Your task to perform on an android device: add a label to a message in the gmail app Image 0: 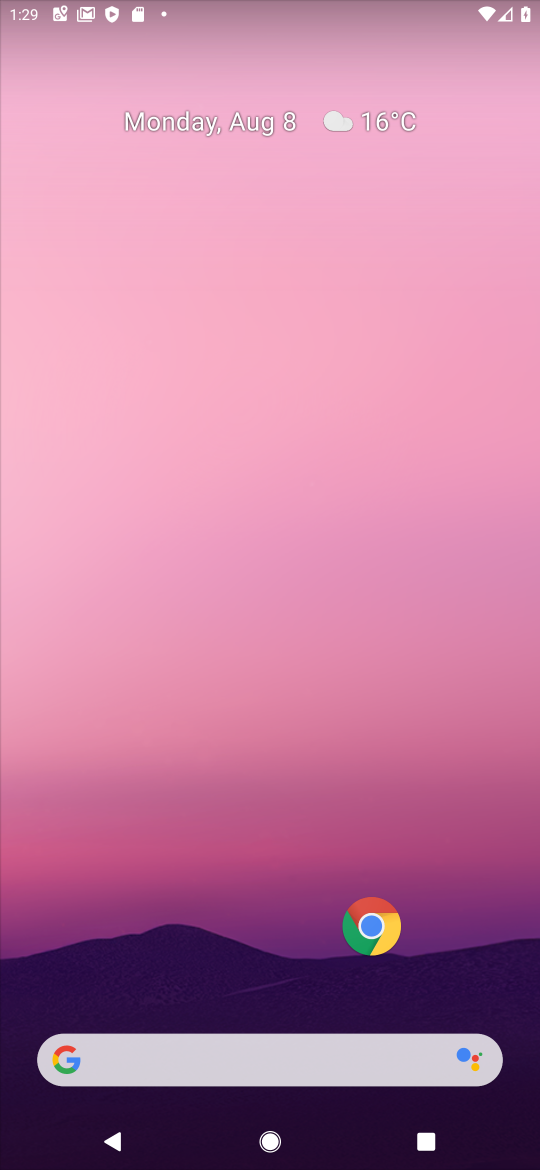
Step 0: drag from (288, 1003) to (313, 240)
Your task to perform on an android device: add a label to a message in the gmail app Image 1: 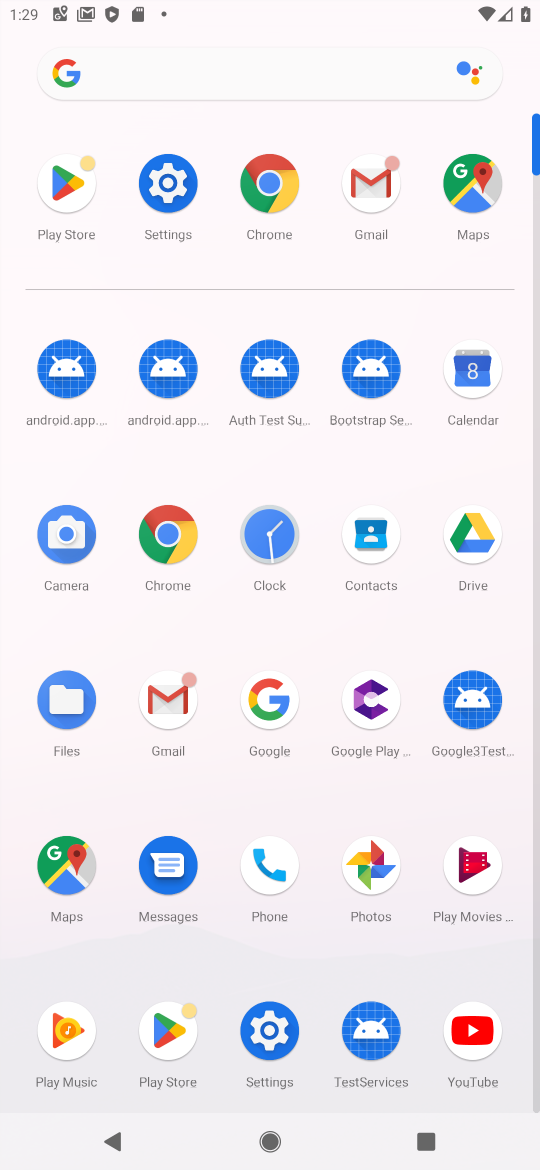
Step 1: click (175, 702)
Your task to perform on an android device: add a label to a message in the gmail app Image 2: 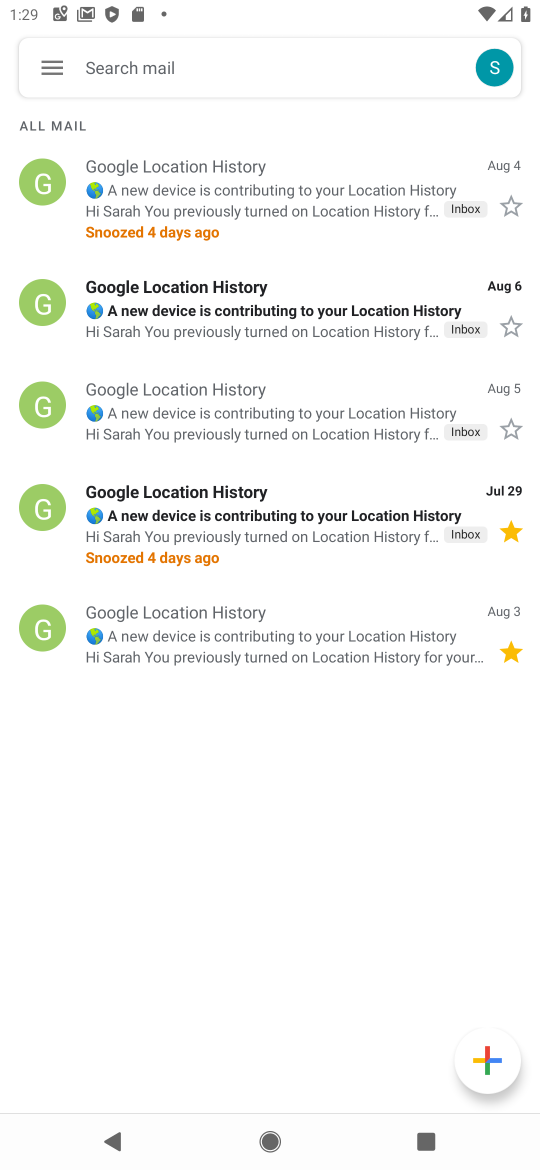
Step 2: click (62, 59)
Your task to perform on an android device: add a label to a message in the gmail app Image 3: 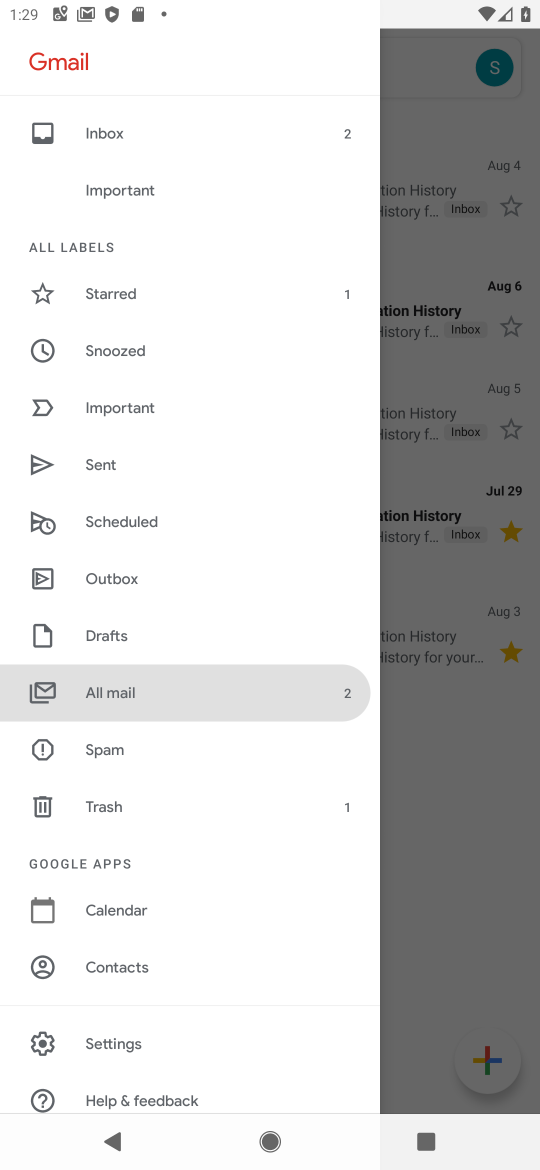
Step 3: drag from (180, 920) to (238, 231)
Your task to perform on an android device: add a label to a message in the gmail app Image 4: 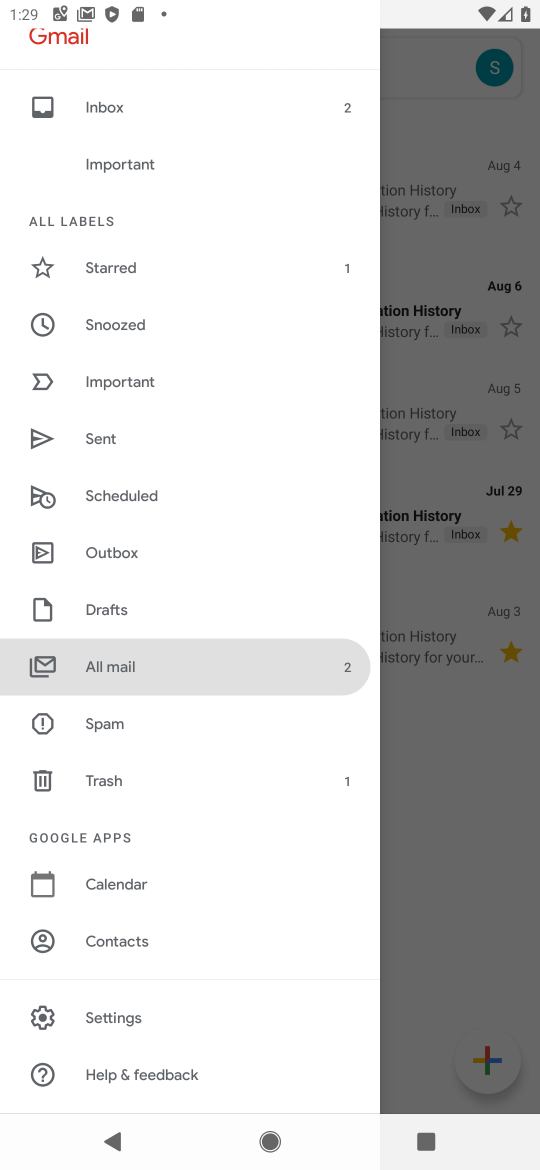
Step 4: click (203, 665)
Your task to perform on an android device: add a label to a message in the gmail app Image 5: 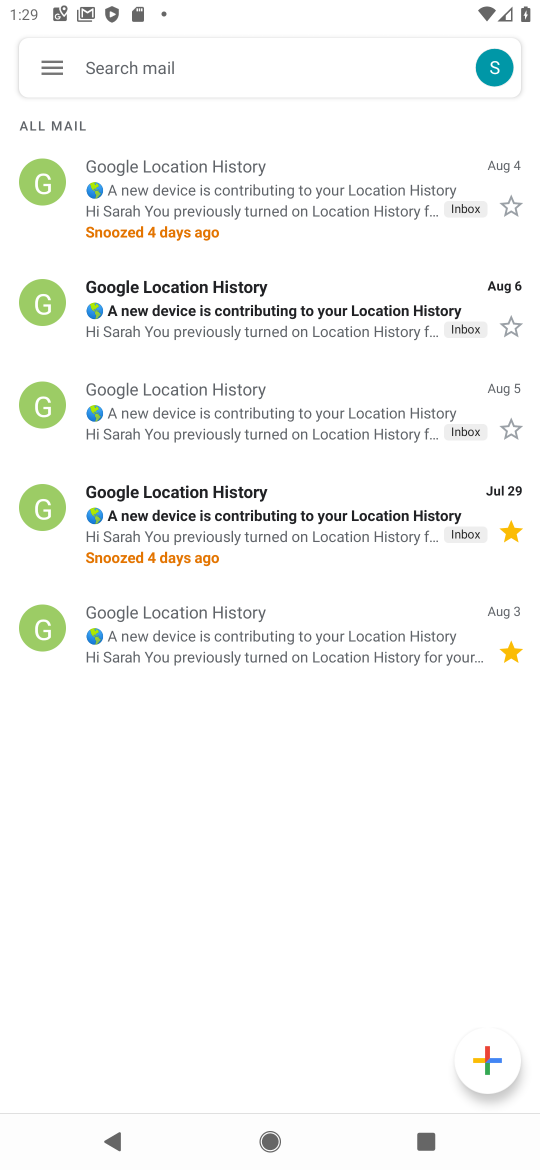
Step 5: click (245, 172)
Your task to perform on an android device: add a label to a message in the gmail app Image 6: 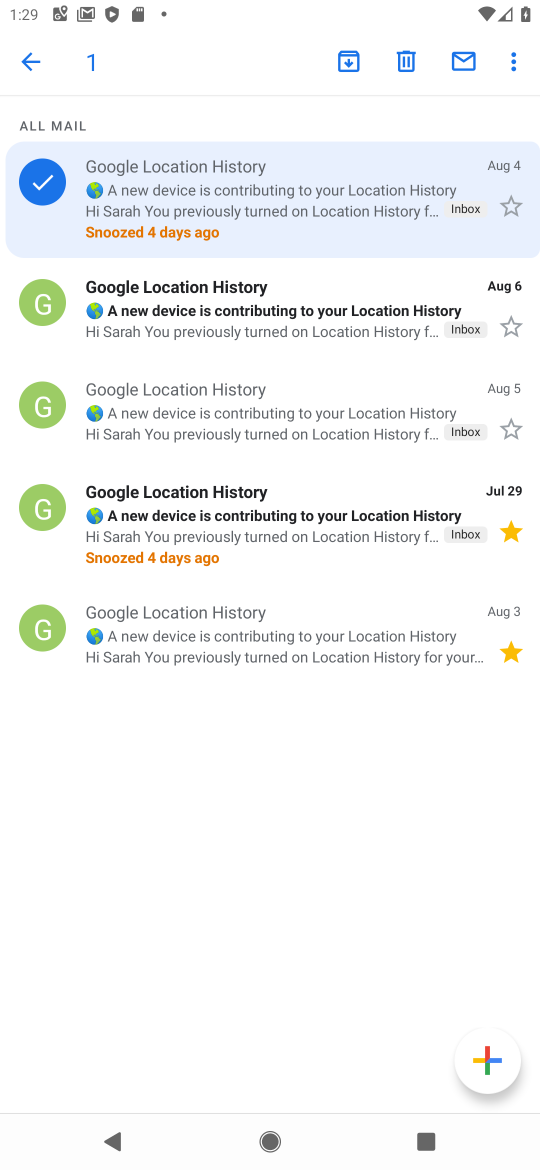
Step 6: click (523, 54)
Your task to perform on an android device: add a label to a message in the gmail app Image 7: 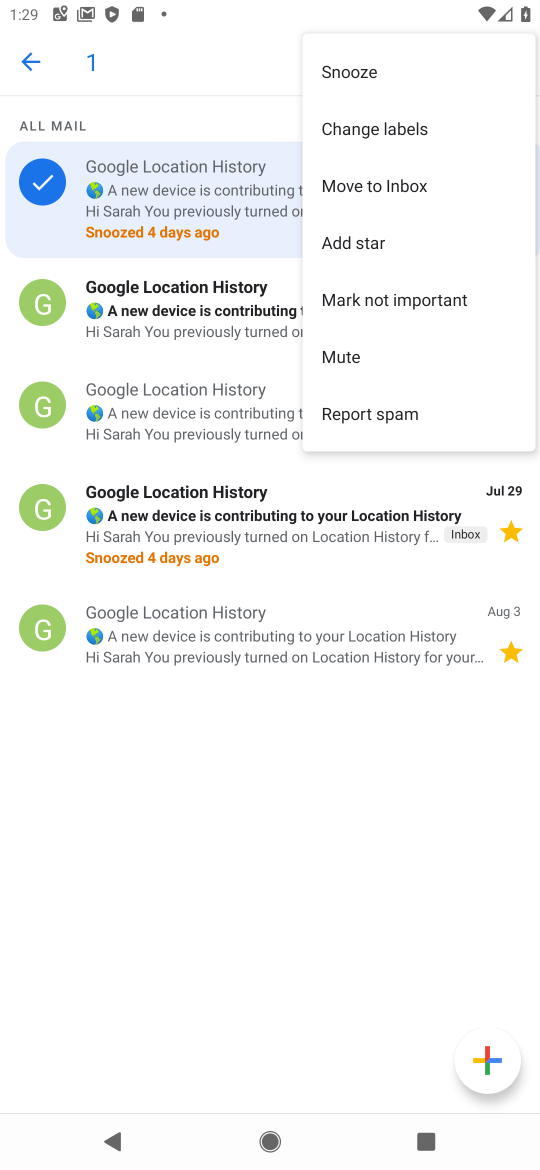
Step 7: click (394, 121)
Your task to perform on an android device: add a label to a message in the gmail app Image 8: 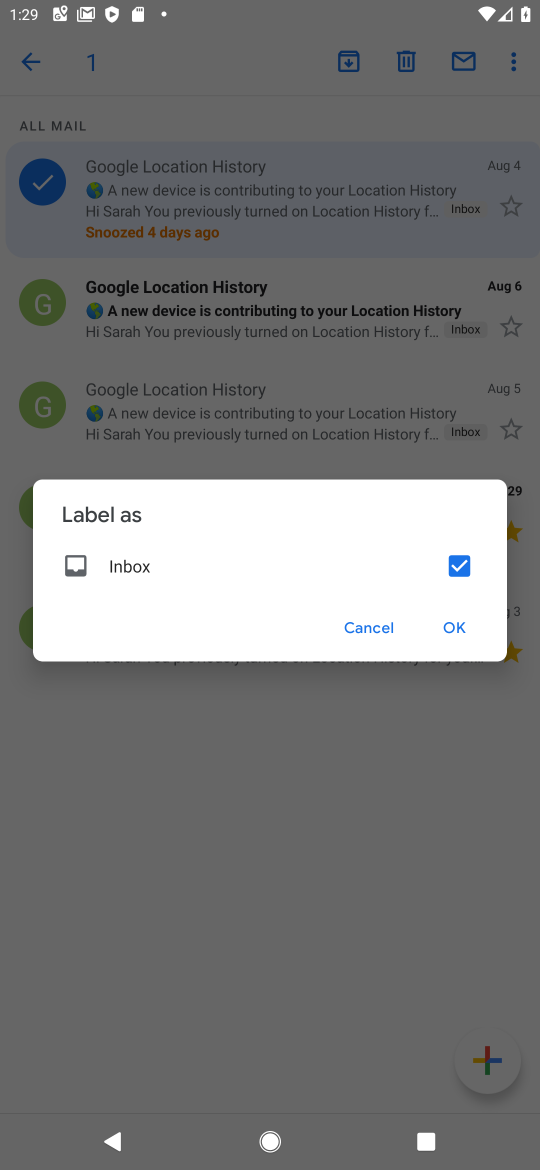
Step 8: click (469, 621)
Your task to perform on an android device: add a label to a message in the gmail app Image 9: 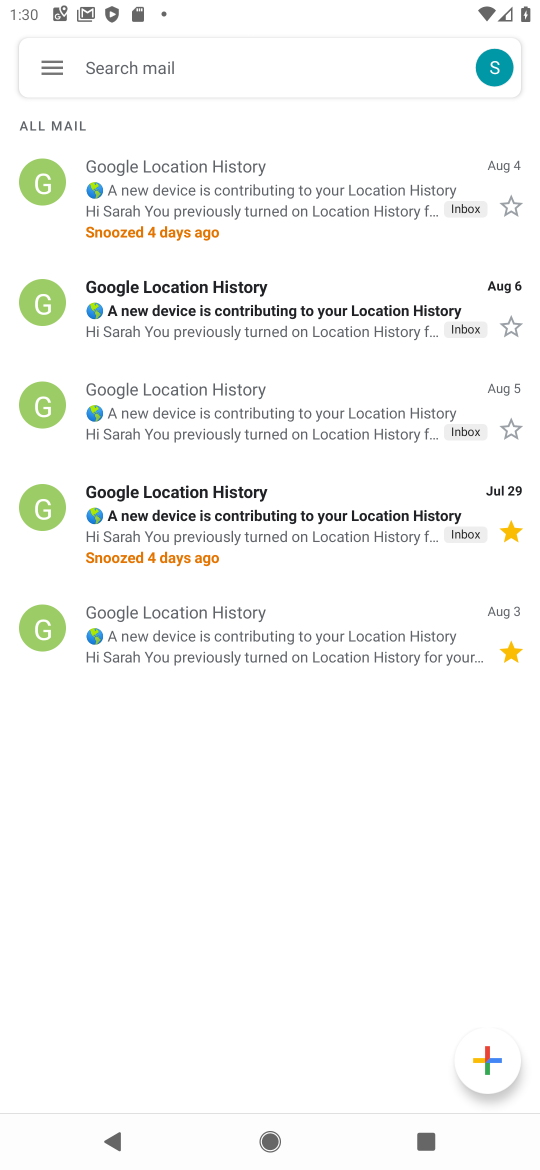
Step 9: task complete